Your task to perform on an android device: turn on bluetooth scan Image 0: 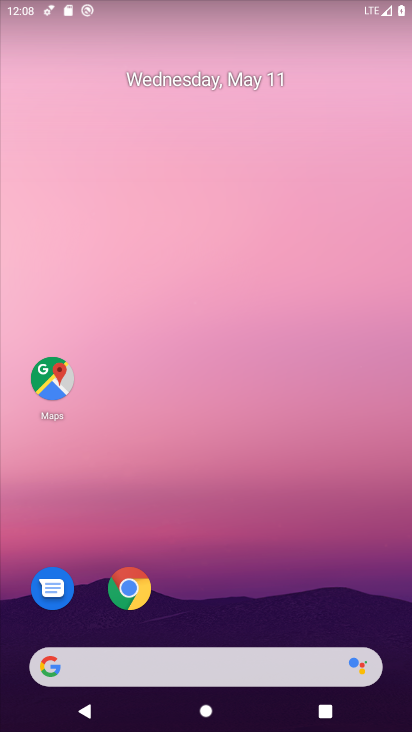
Step 0: drag from (221, 647) to (397, 662)
Your task to perform on an android device: turn on bluetooth scan Image 1: 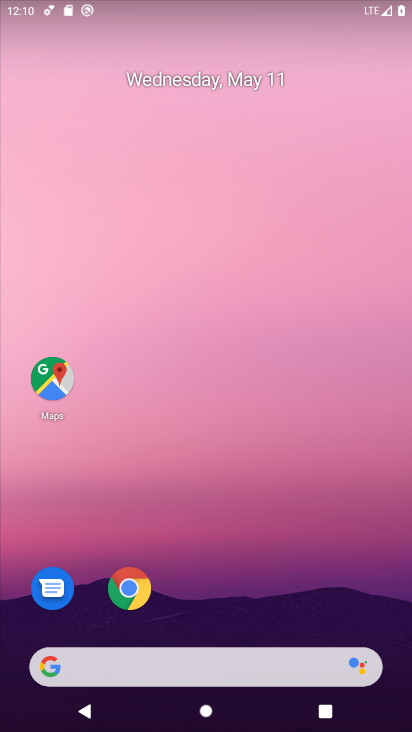
Step 1: drag from (195, 642) to (195, 257)
Your task to perform on an android device: turn on bluetooth scan Image 2: 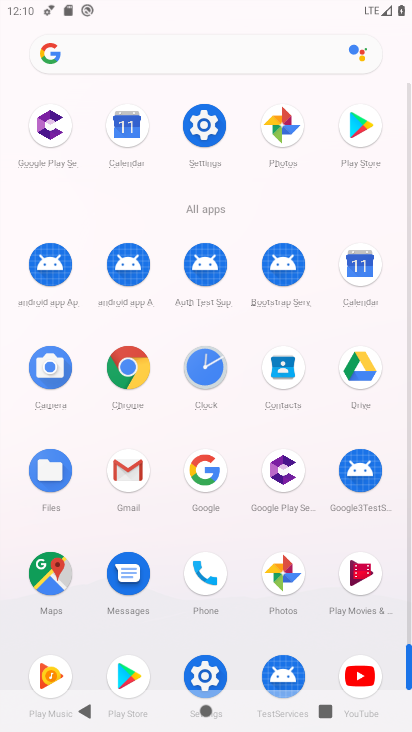
Step 2: click (197, 131)
Your task to perform on an android device: turn on bluetooth scan Image 3: 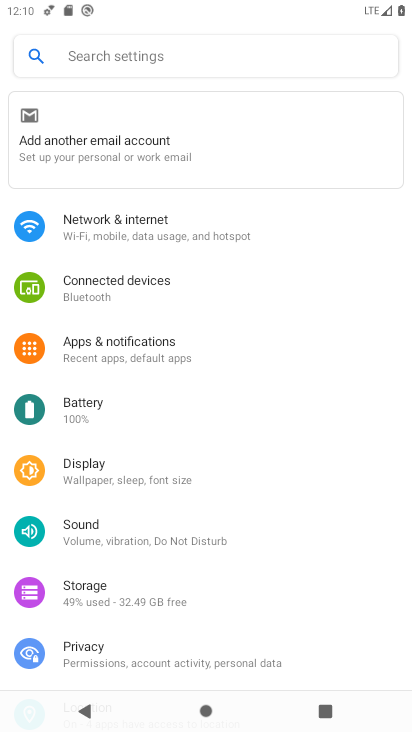
Step 3: drag from (142, 641) to (120, 364)
Your task to perform on an android device: turn on bluetooth scan Image 4: 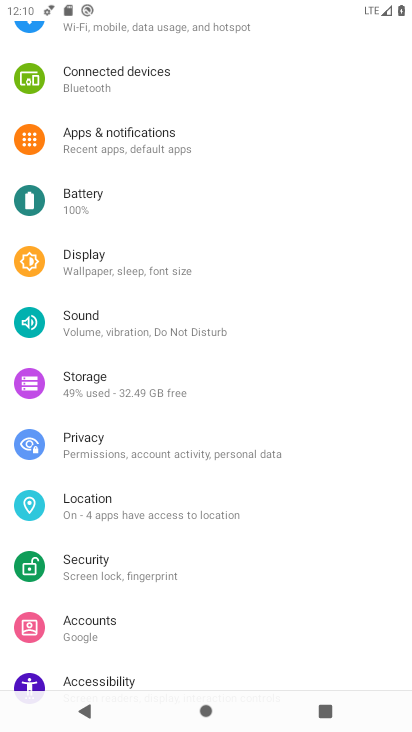
Step 4: click (96, 506)
Your task to perform on an android device: turn on bluetooth scan Image 5: 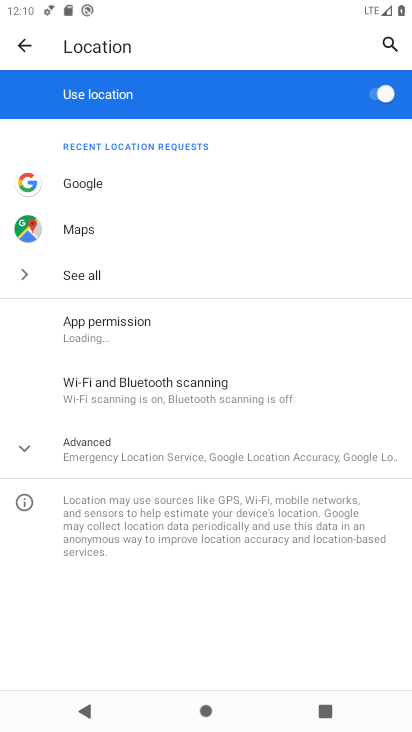
Step 5: click (97, 397)
Your task to perform on an android device: turn on bluetooth scan Image 6: 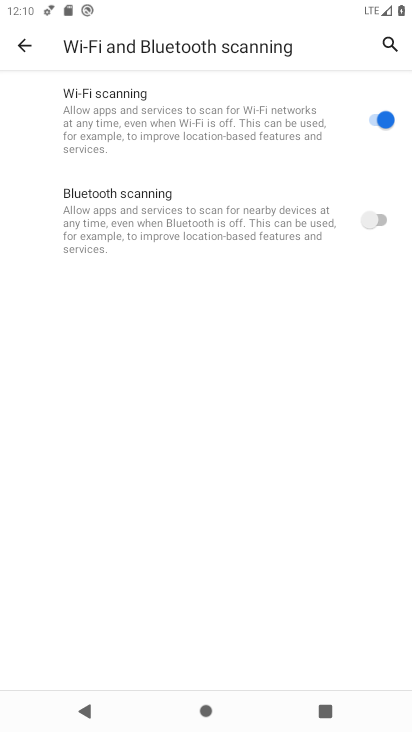
Step 6: click (379, 216)
Your task to perform on an android device: turn on bluetooth scan Image 7: 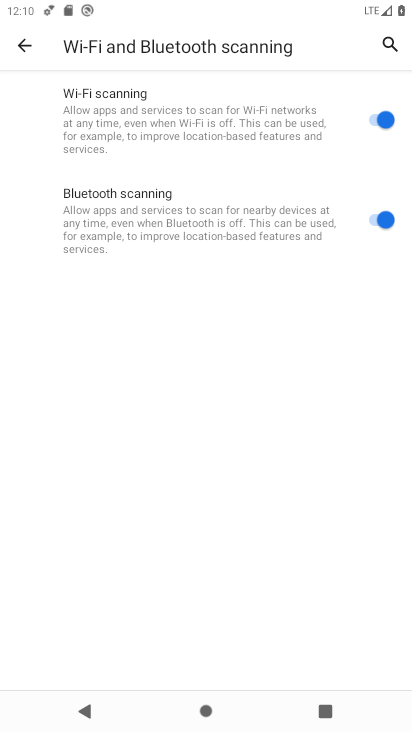
Step 7: task complete